Your task to perform on an android device: Open Google Maps and go to "Timeline" Image 0: 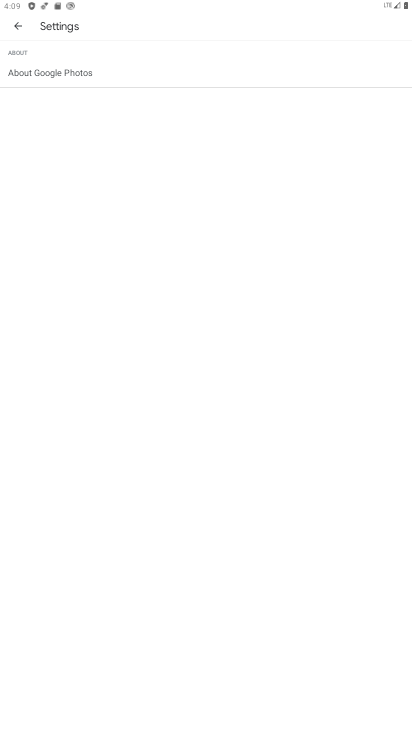
Step 0: press home button
Your task to perform on an android device: Open Google Maps and go to "Timeline" Image 1: 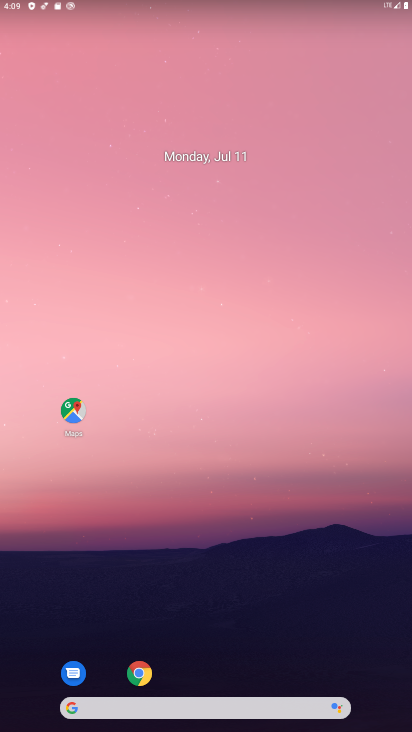
Step 1: drag from (243, 637) to (225, 159)
Your task to perform on an android device: Open Google Maps and go to "Timeline" Image 2: 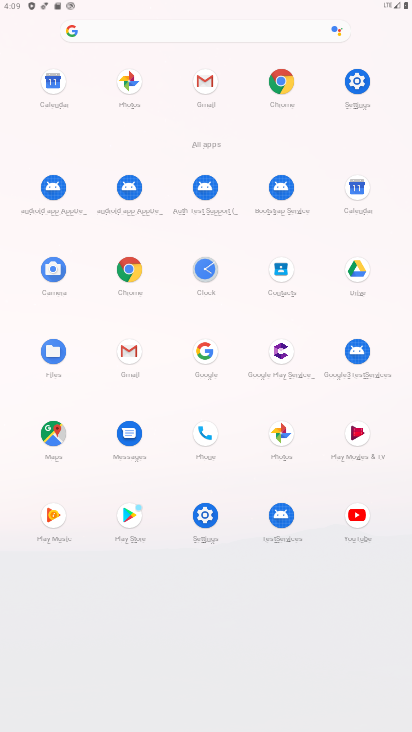
Step 2: click (46, 434)
Your task to perform on an android device: Open Google Maps and go to "Timeline" Image 3: 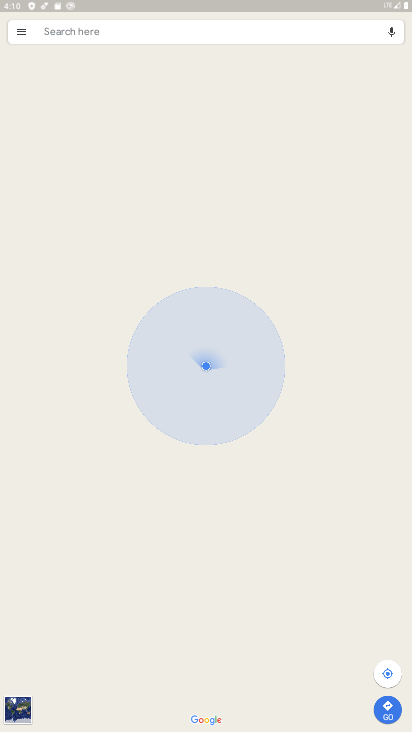
Step 3: click (20, 28)
Your task to perform on an android device: Open Google Maps and go to "Timeline" Image 4: 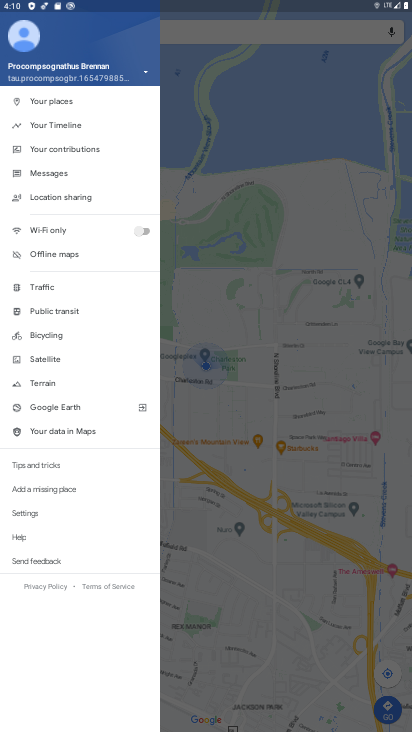
Step 4: click (71, 126)
Your task to perform on an android device: Open Google Maps and go to "Timeline" Image 5: 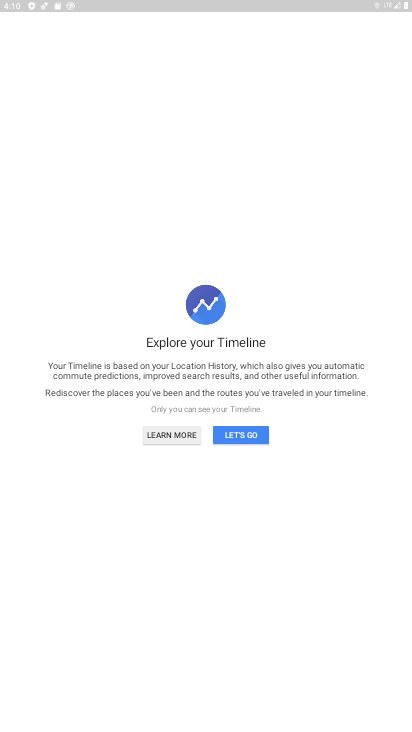
Step 5: click (255, 439)
Your task to perform on an android device: Open Google Maps and go to "Timeline" Image 6: 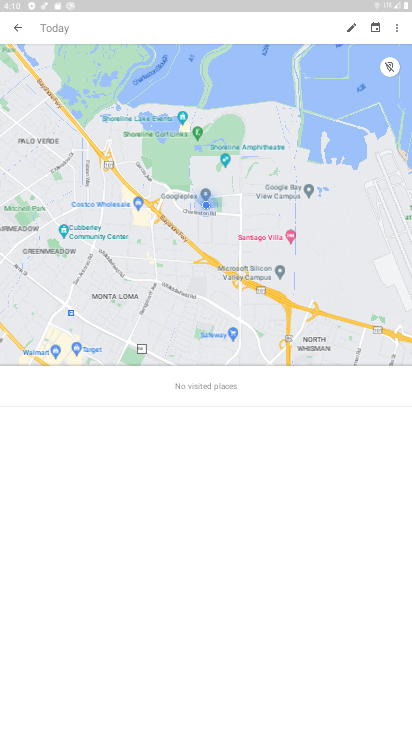
Step 6: task complete